Your task to perform on an android device: Open settings Image 0: 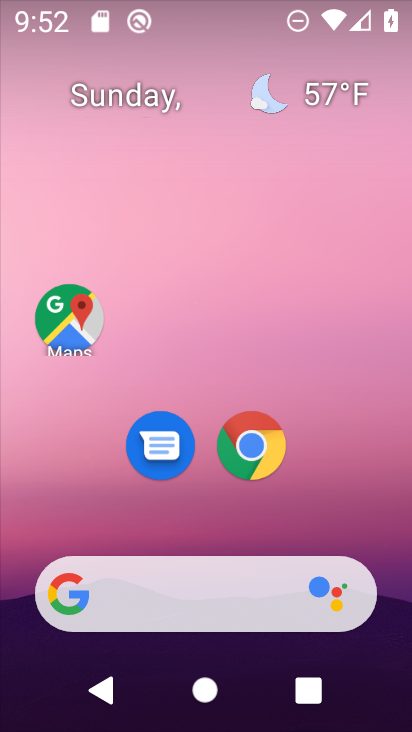
Step 0: drag from (261, 551) to (350, 93)
Your task to perform on an android device: Open settings Image 1: 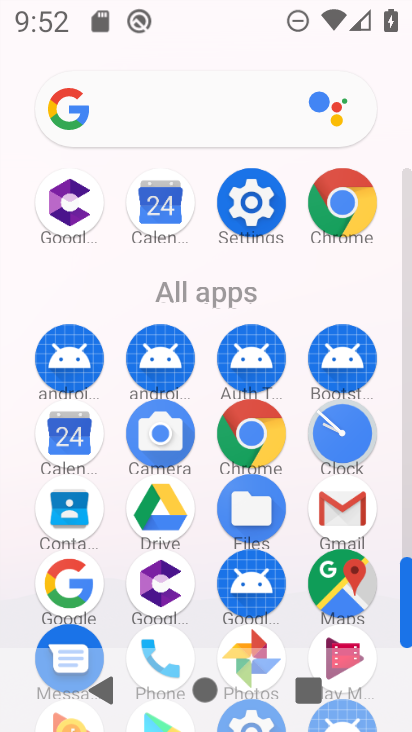
Step 1: click (256, 206)
Your task to perform on an android device: Open settings Image 2: 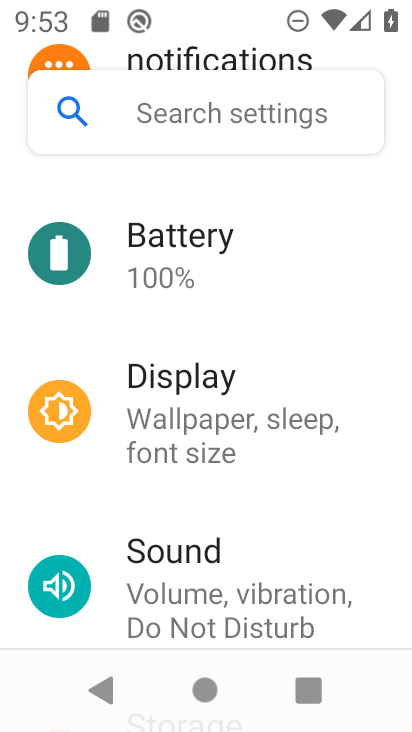
Step 2: task complete